Your task to perform on an android device: Go to location settings Image 0: 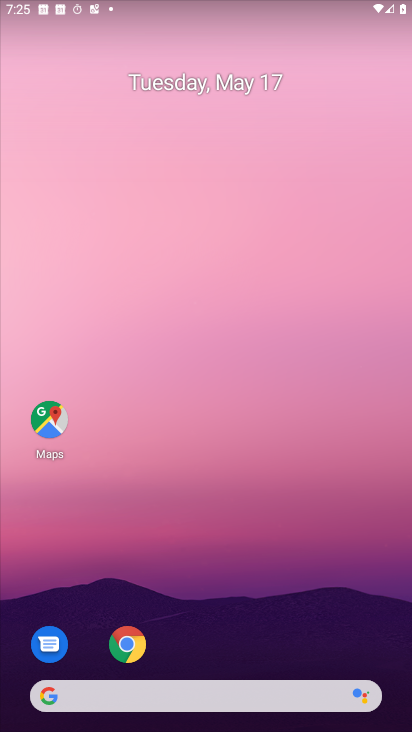
Step 0: click (277, 83)
Your task to perform on an android device: Go to location settings Image 1: 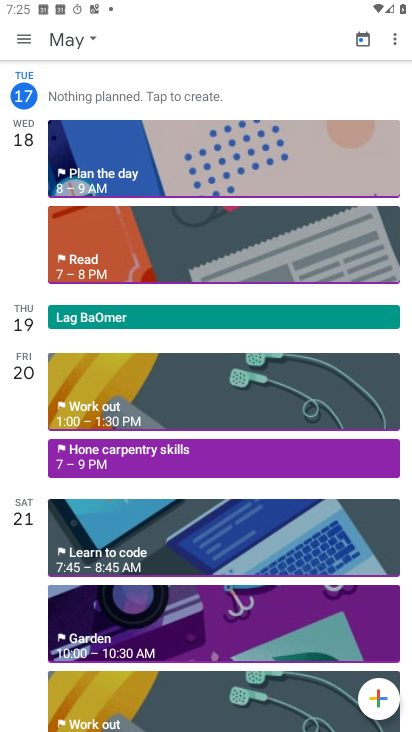
Step 1: press home button
Your task to perform on an android device: Go to location settings Image 2: 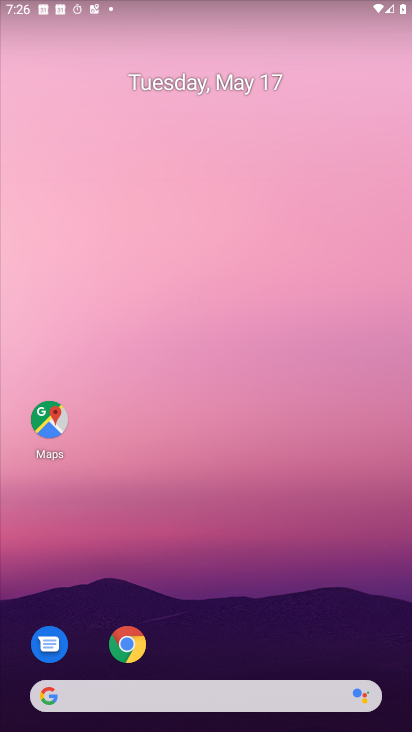
Step 2: drag from (336, 645) to (228, 0)
Your task to perform on an android device: Go to location settings Image 3: 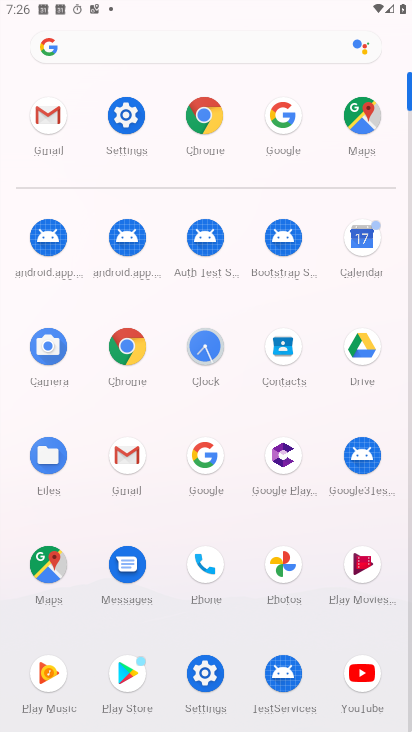
Step 3: click (198, 679)
Your task to perform on an android device: Go to location settings Image 4: 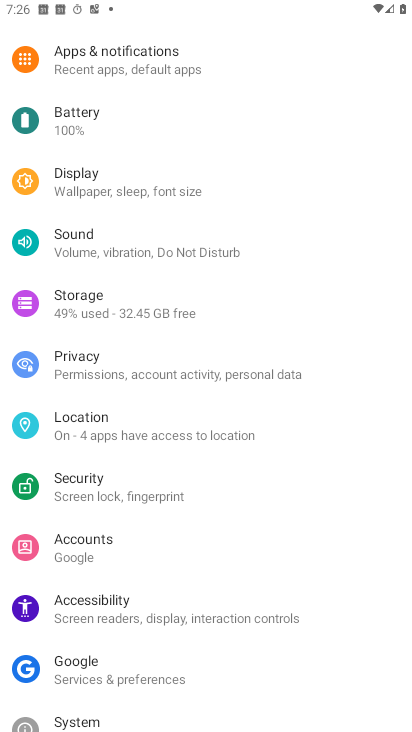
Step 4: click (106, 435)
Your task to perform on an android device: Go to location settings Image 5: 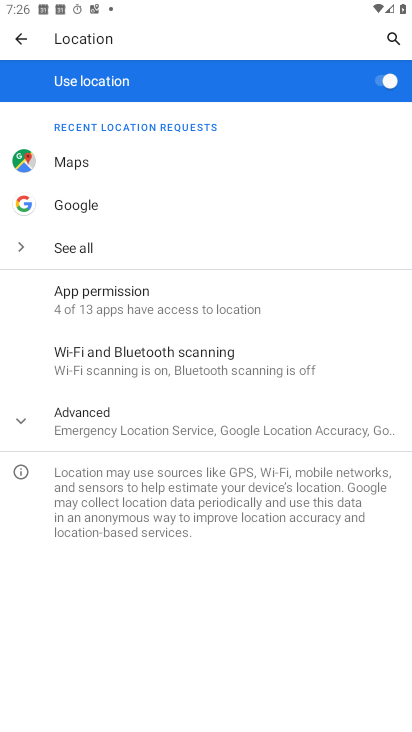
Step 5: task complete